Your task to perform on an android device: turn on translation in the chrome app Image 0: 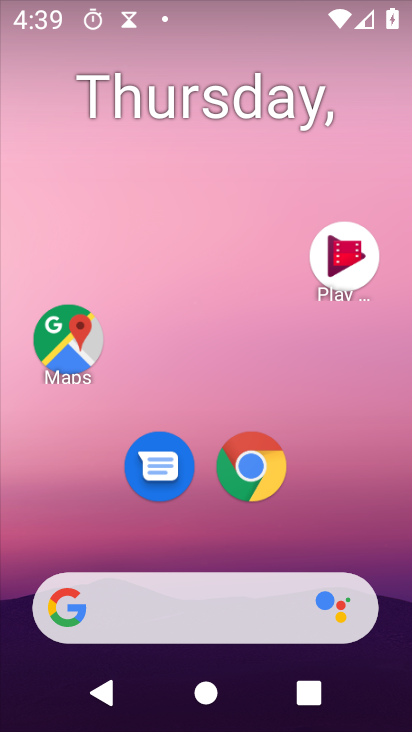
Step 0: drag from (364, 593) to (361, 8)
Your task to perform on an android device: turn on translation in the chrome app Image 1: 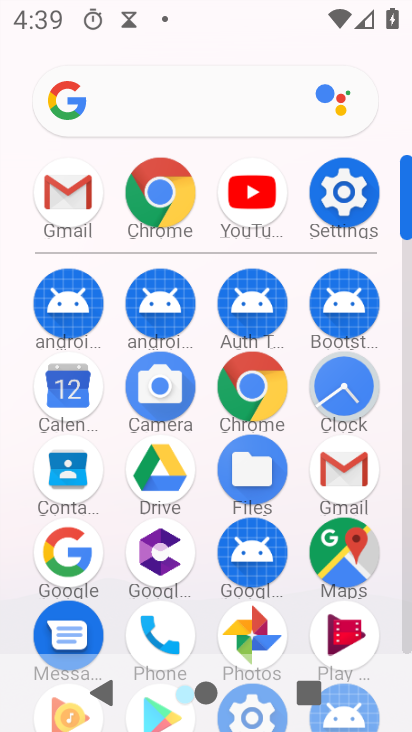
Step 1: click (229, 377)
Your task to perform on an android device: turn on translation in the chrome app Image 2: 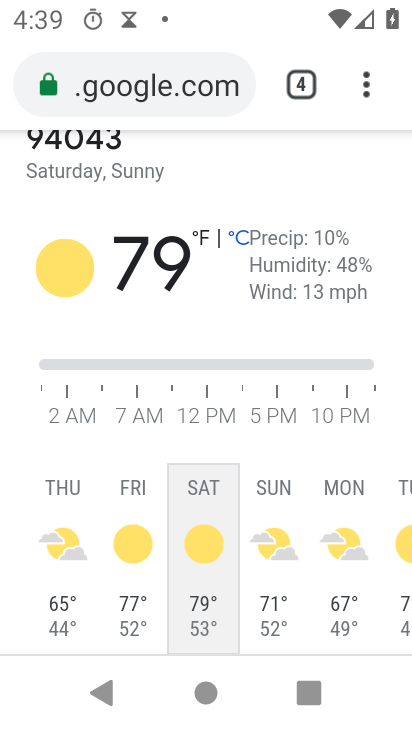
Step 2: drag from (359, 77) to (177, 526)
Your task to perform on an android device: turn on translation in the chrome app Image 3: 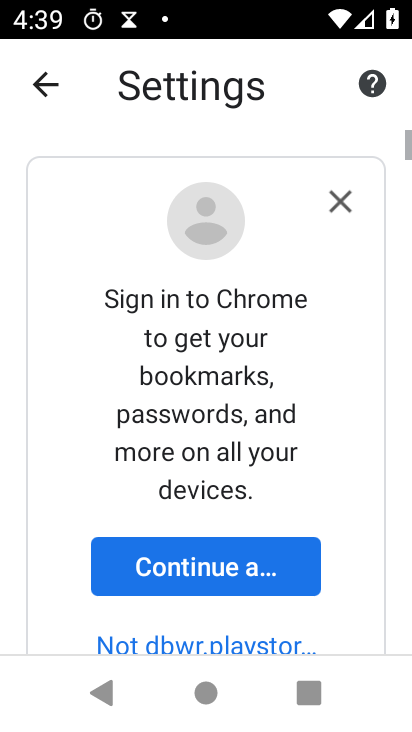
Step 3: drag from (265, 594) to (288, 2)
Your task to perform on an android device: turn on translation in the chrome app Image 4: 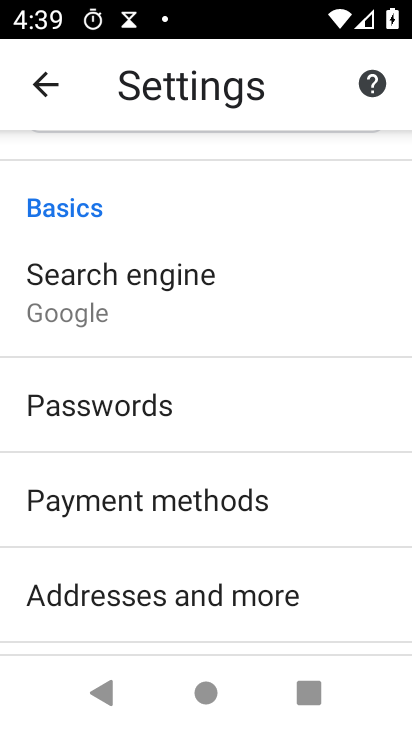
Step 4: drag from (208, 600) to (258, 112)
Your task to perform on an android device: turn on translation in the chrome app Image 5: 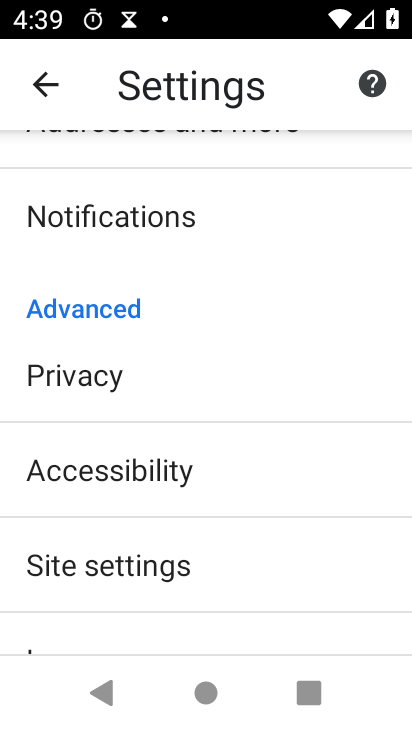
Step 5: drag from (144, 602) to (178, 265)
Your task to perform on an android device: turn on translation in the chrome app Image 6: 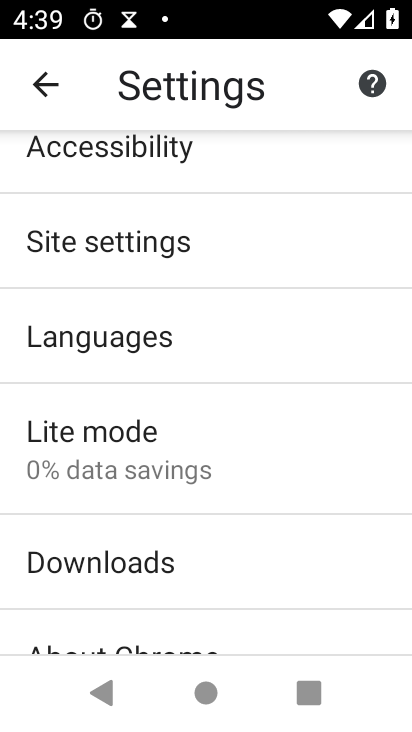
Step 6: click (174, 342)
Your task to perform on an android device: turn on translation in the chrome app Image 7: 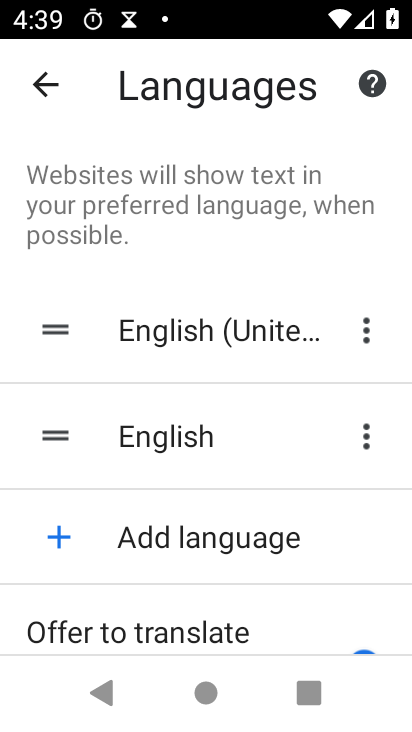
Step 7: task complete